Your task to perform on an android device: Open Google Image 0: 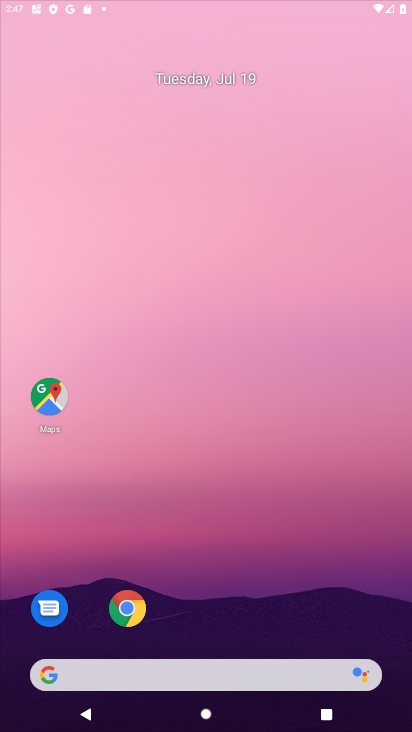
Step 0: click (268, 1)
Your task to perform on an android device: Open Google Image 1: 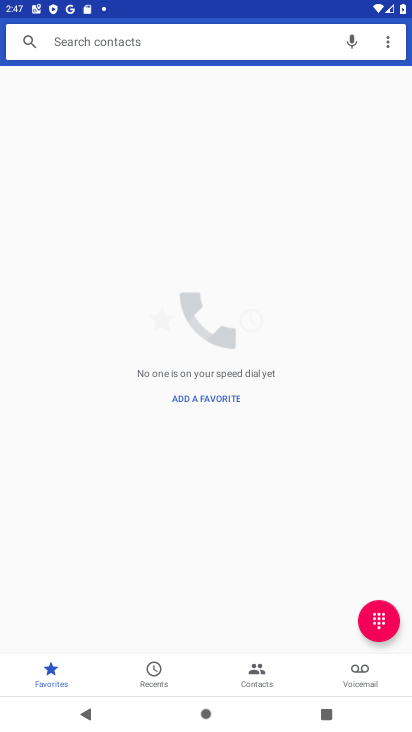
Step 1: drag from (284, 605) to (289, 264)
Your task to perform on an android device: Open Google Image 2: 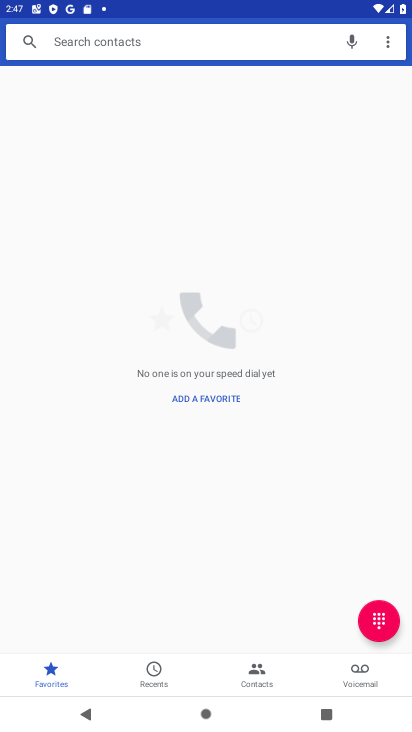
Step 2: press home button
Your task to perform on an android device: Open Google Image 3: 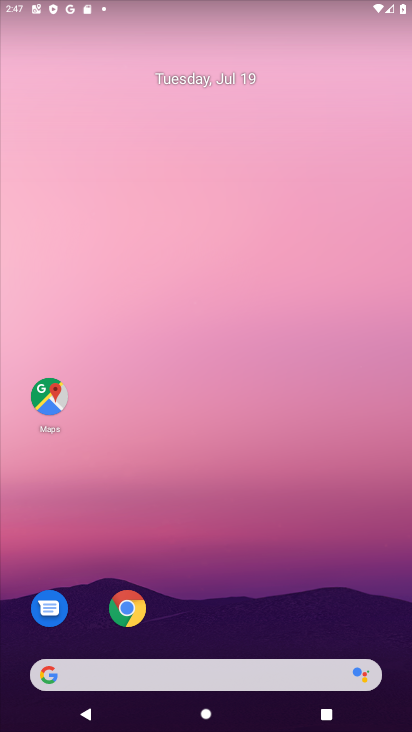
Step 3: drag from (237, 571) to (237, 53)
Your task to perform on an android device: Open Google Image 4: 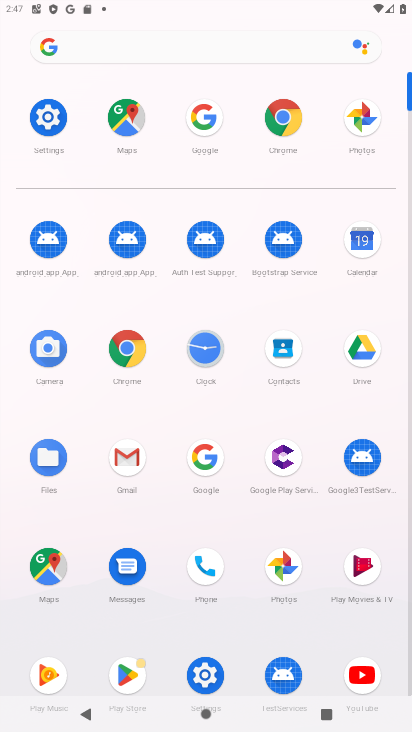
Step 4: click (201, 458)
Your task to perform on an android device: Open Google Image 5: 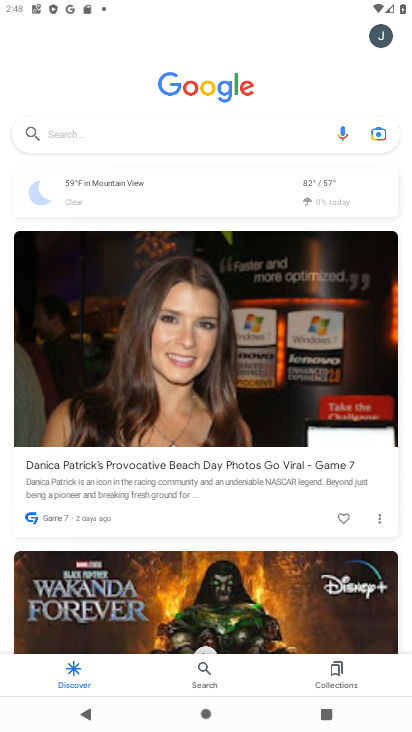
Step 5: task complete